Your task to perform on an android device: Go to eBay Image 0: 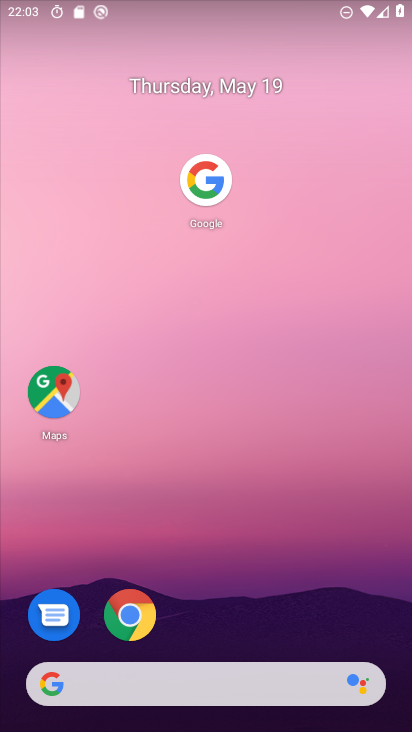
Step 0: click (210, 185)
Your task to perform on an android device: Go to eBay Image 1: 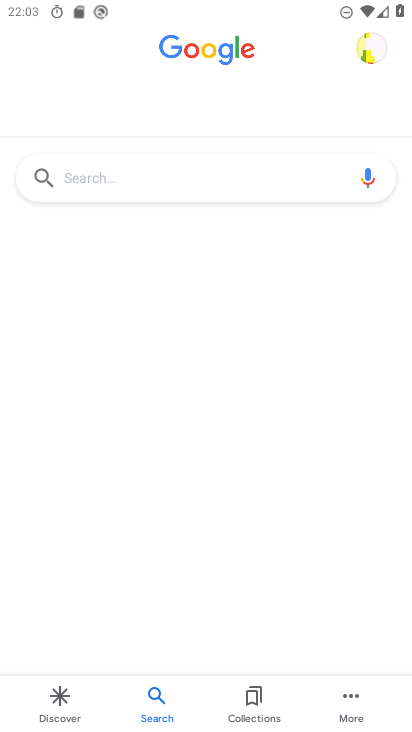
Step 1: click (132, 178)
Your task to perform on an android device: Go to eBay Image 2: 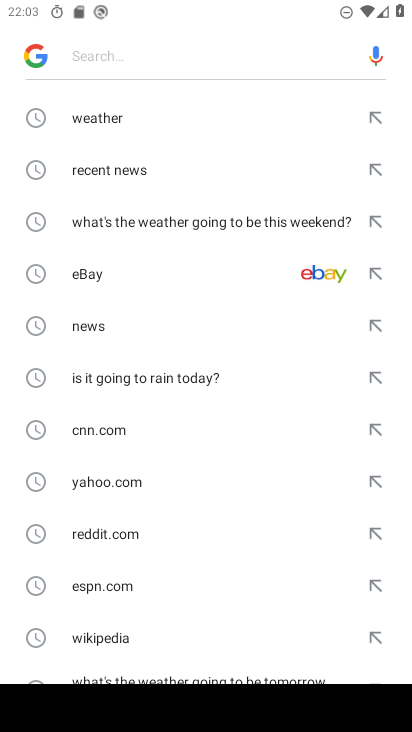
Step 2: click (113, 277)
Your task to perform on an android device: Go to eBay Image 3: 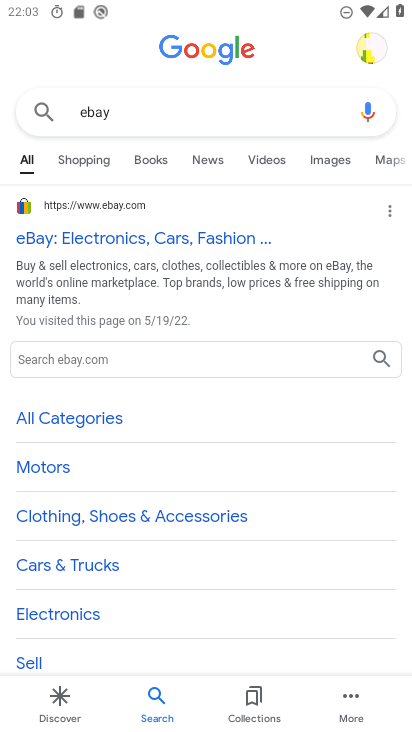
Step 3: click (73, 235)
Your task to perform on an android device: Go to eBay Image 4: 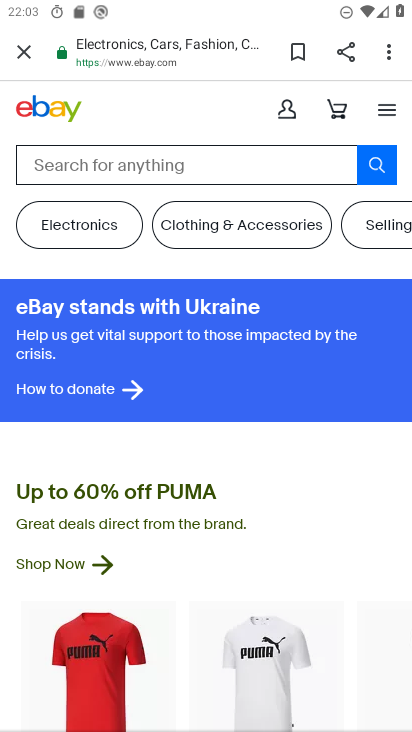
Step 4: task complete